Your task to perform on an android device: Do I have any events tomorrow? Image 0: 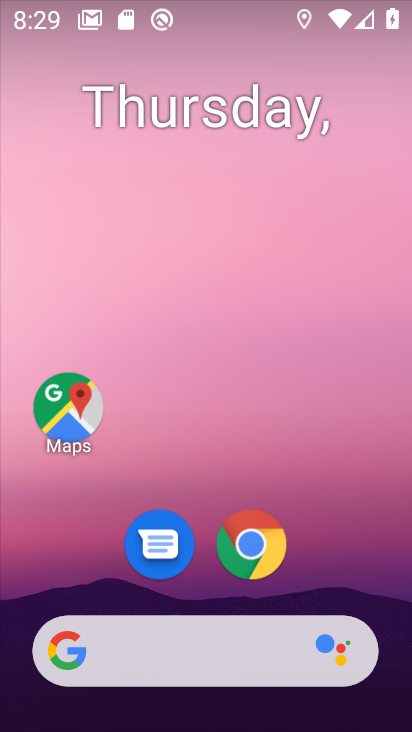
Step 0: drag from (347, 540) to (293, 9)
Your task to perform on an android device: Do I have any events tomorrow? Image 1: 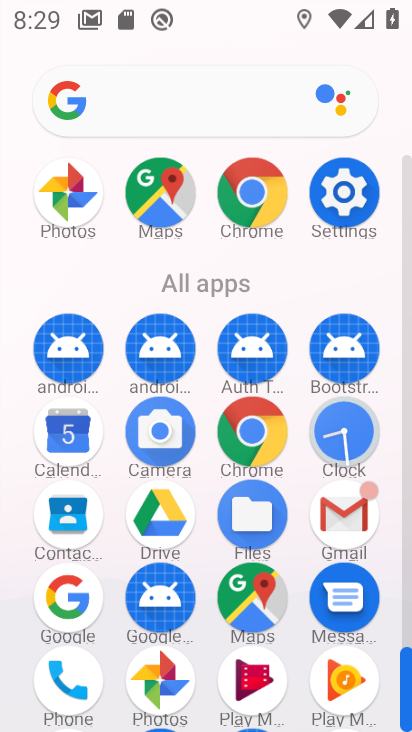
Step 1: drag from (3, 634) to (23, 322)
Your task to perform on an android device: Do I have any events tomorrow? Image 2: 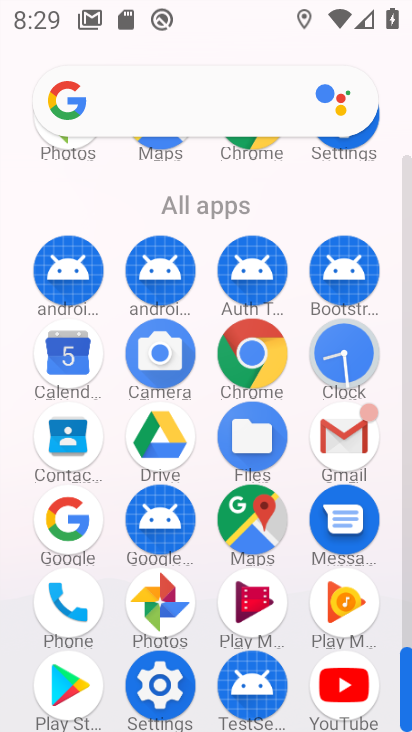
Step 2: click (61, 355)
Your task to perform on an android device: Do I have any events tomorrow? Image 3: 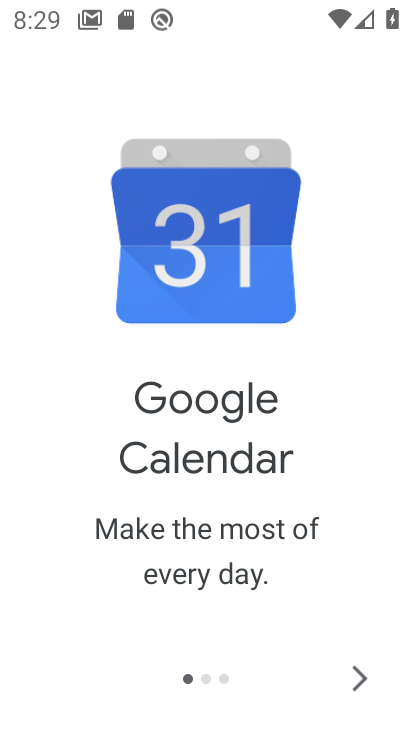
Step 3: click (360, 668)
Your task to perform on an android device: Do I have any events tomorrow? Image 4: 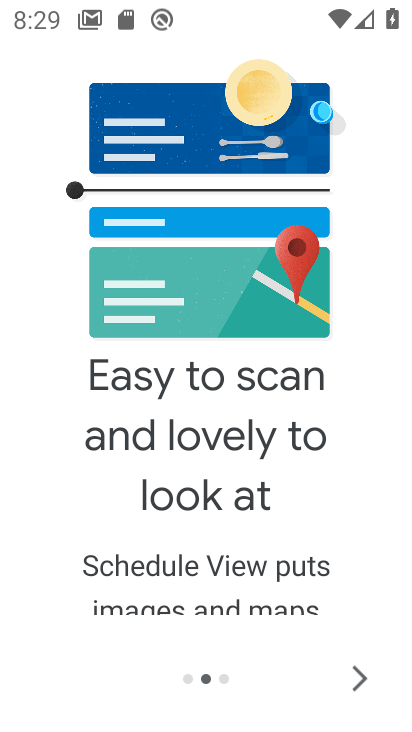
Step 4: click (360, 668)
Your task to perform on an android device: Do I have any events tomorrow? Image 5: 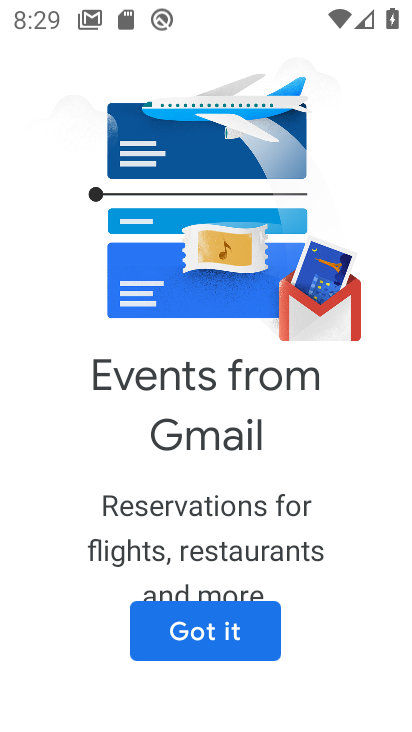
Step 5: click (258, 636)
Your task to perform on an android device: Do I have any events tomorrow? Image 6: 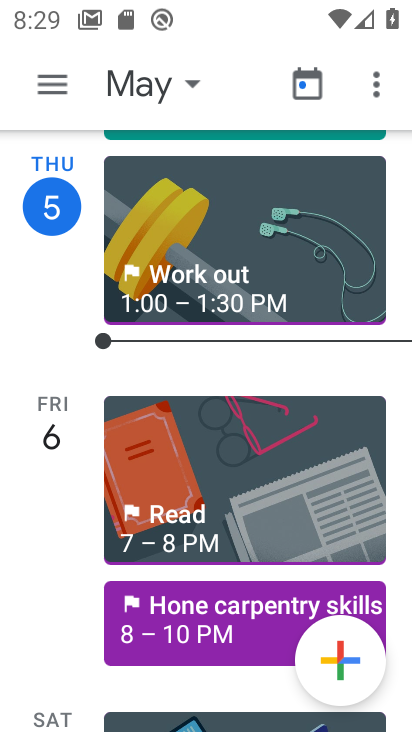
Step 6: click (43, 434)
Your task to perform on an android device: Do I have any events tomorrow? Image 7: 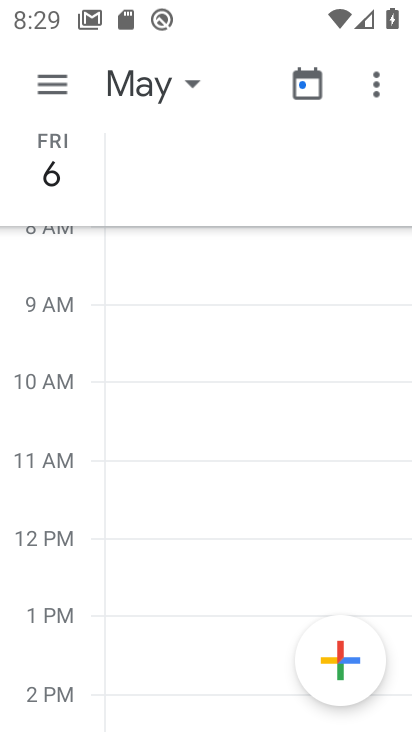
Step 7: task complete